Your task to perform on an android device: Open my contact list Image 0: 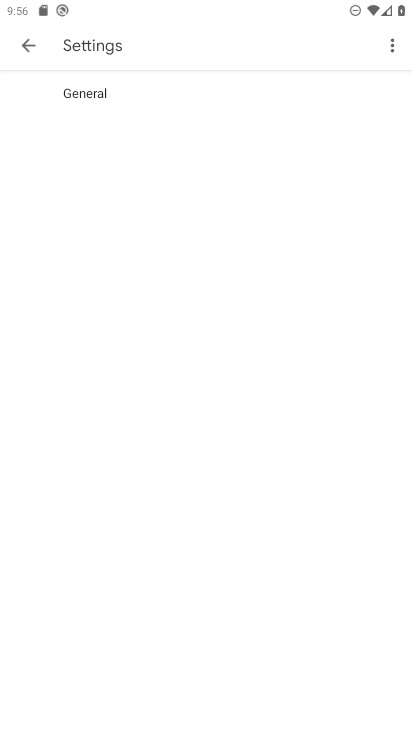
Step 0: press home button
Your task to perform on an android device: Open my contact list Image 1: 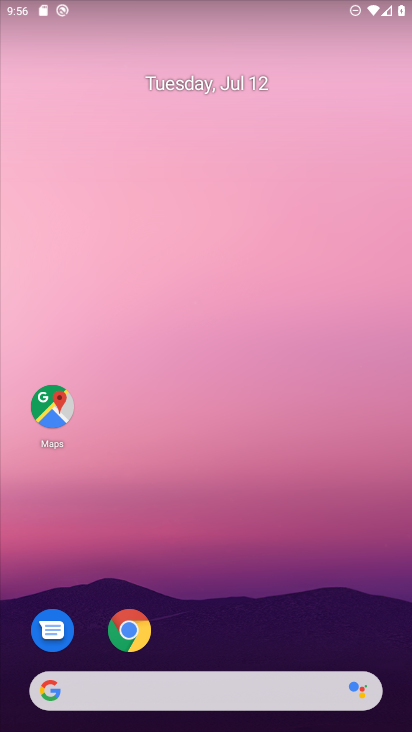
Step 1: drag from (216, 677) to (219, 384)
Your task to perform on an android device: Open my contact list Image 2: 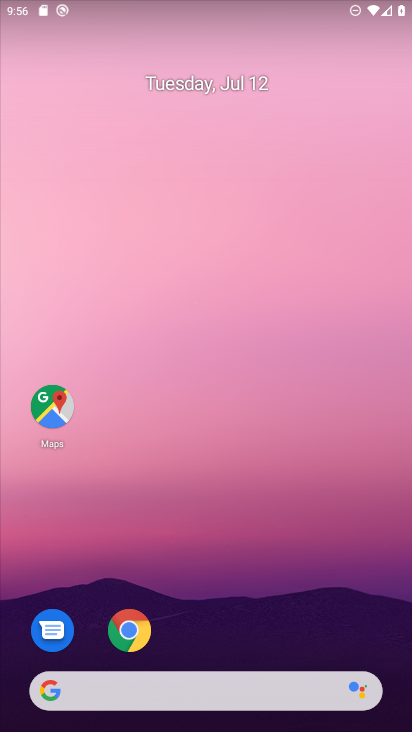
Step 2: drag from (252, 638) to (252, 302)
Your task to perform on an android device: Open my contact list Image 3: 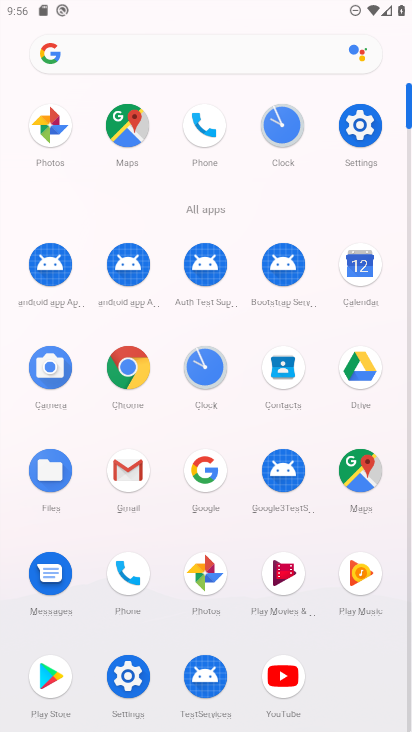
Step 3: click (134, 575)
Your task to perform on an android device: Open my contact list Image 4: 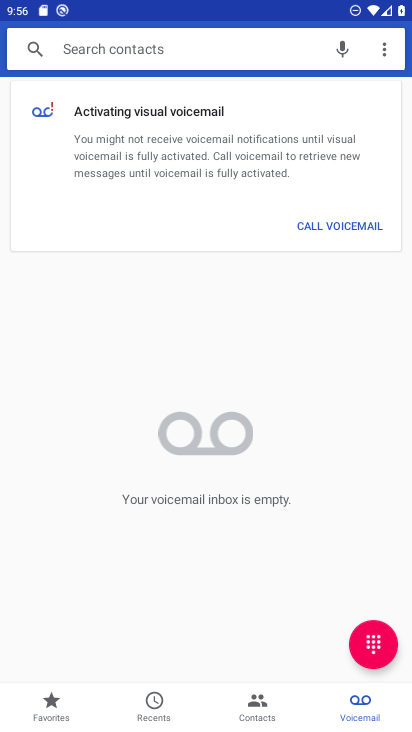
Step 4: click (261, 707)
Your task to perform on an android device: Open my contact list Image 5: 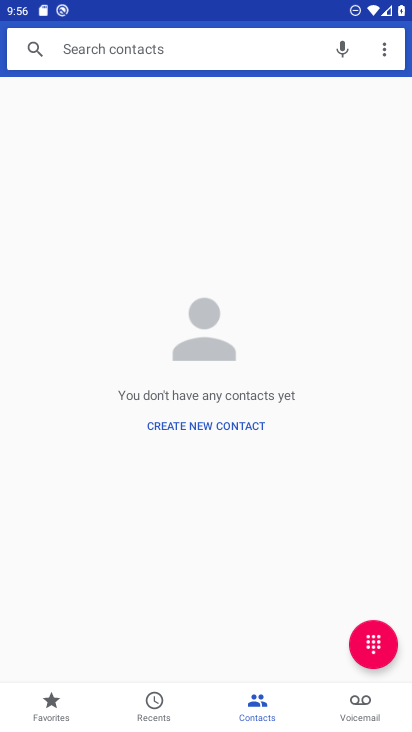
Step 5: task complete